Your task to perform on an android device: toggle location history Image 0: 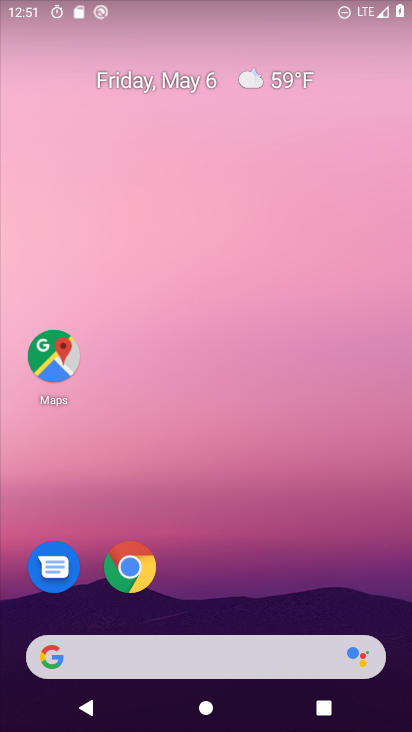
Step 0: click (46, 363)
Your task to perform on an android device: toggle location history Image 1: 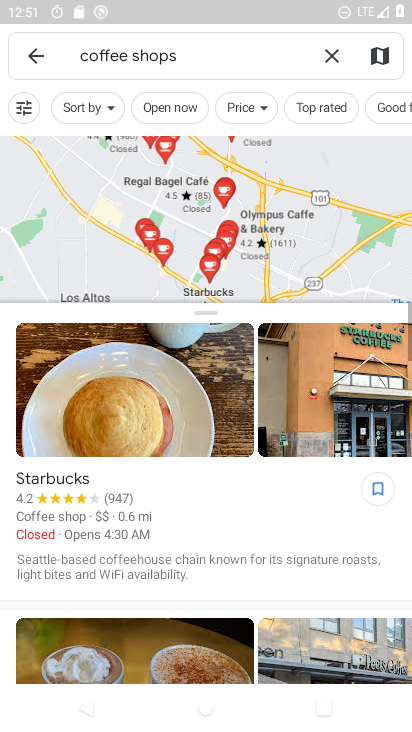
Step 1: click (340, 56)
Your task to perform on an android device: toggle location history Image 2: 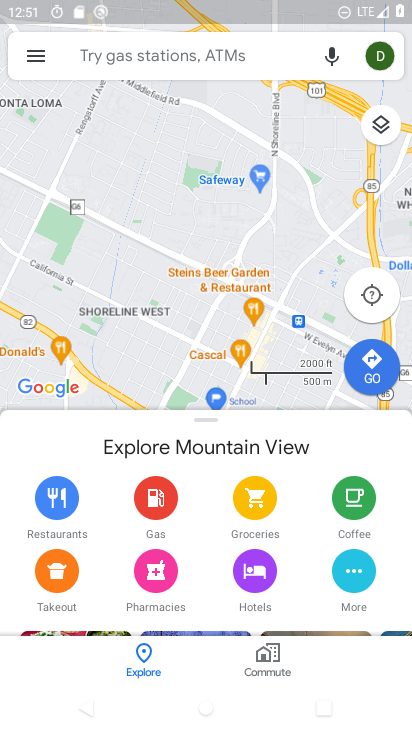
Step 2: click (36, 60)
Your task to perform on an android device: toggle location history Image 3: 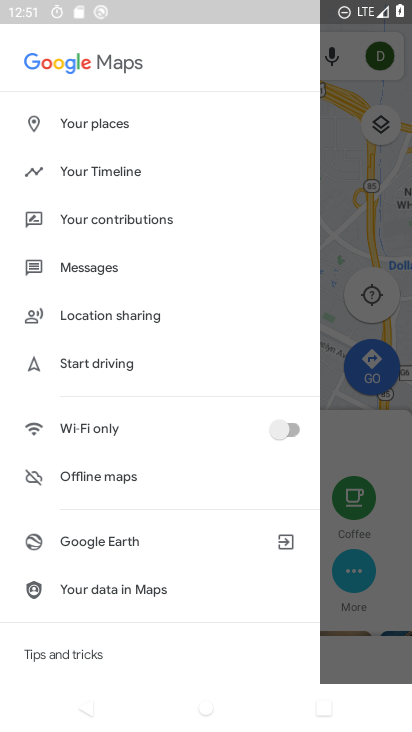
Step 3: click (82, 167)
Your task to perform on an android device: toggle location history Image 4: 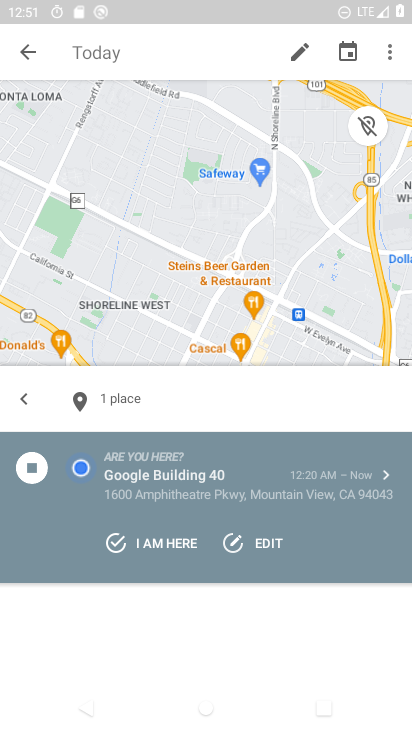
Step 4: click (389, 57)
Your task to perform on an android device: toggle location history Image 5: 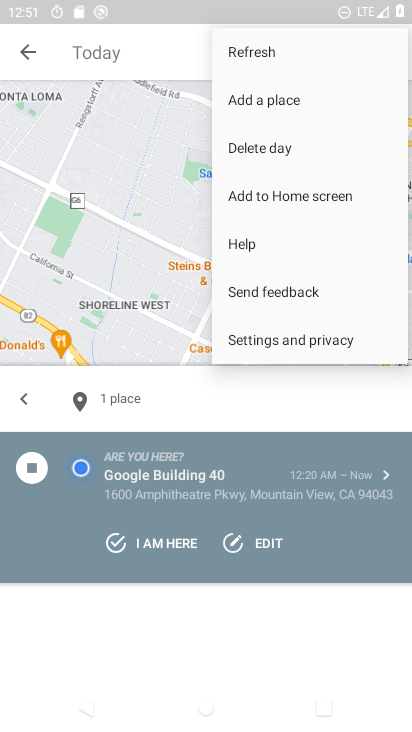
Step 5: click (277, 339)
Your task to perform on an android device: toggle location history Image 6: 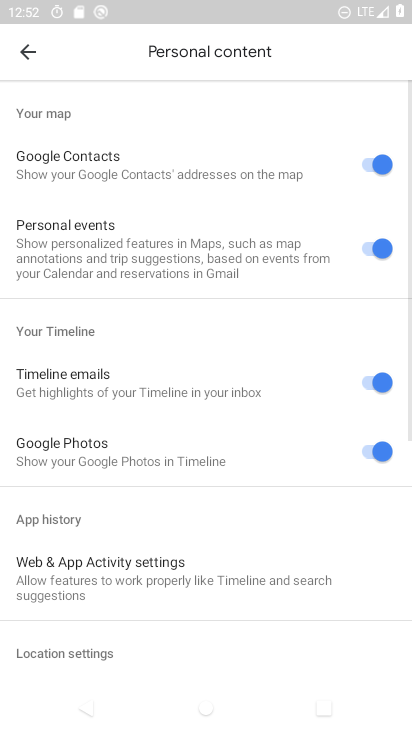
Step 6: drag from (171, 457) to (175, 190)
Your task to perform on an android device: toggle location history Image 7: 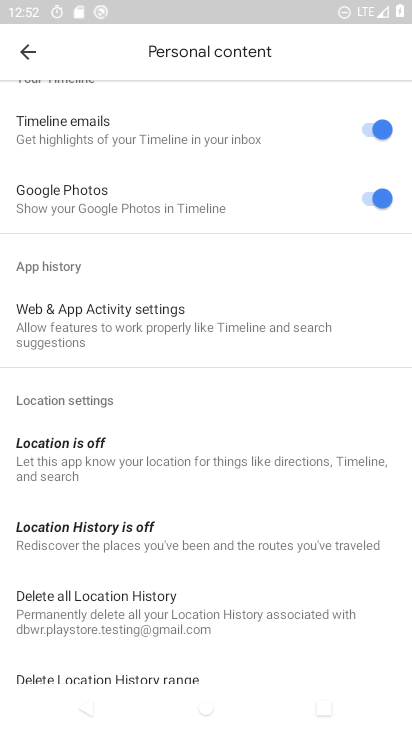
Step 7: click (87, 532)
Your task to perform on an android device: toggle location history Image 8: 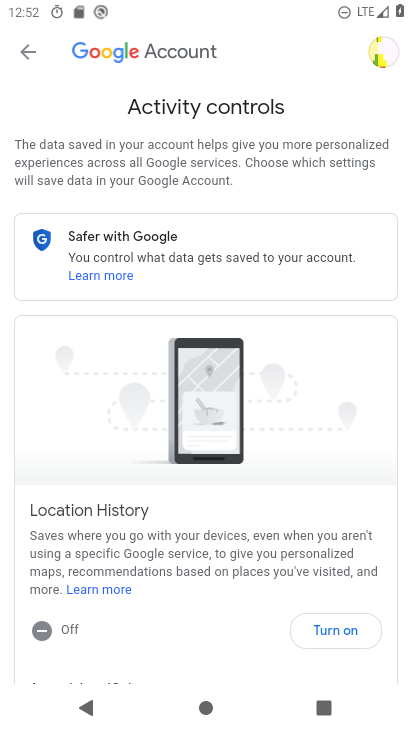
Step 8: click (319, 627)
Your task to perform on an android device: toggle location history Image 9: 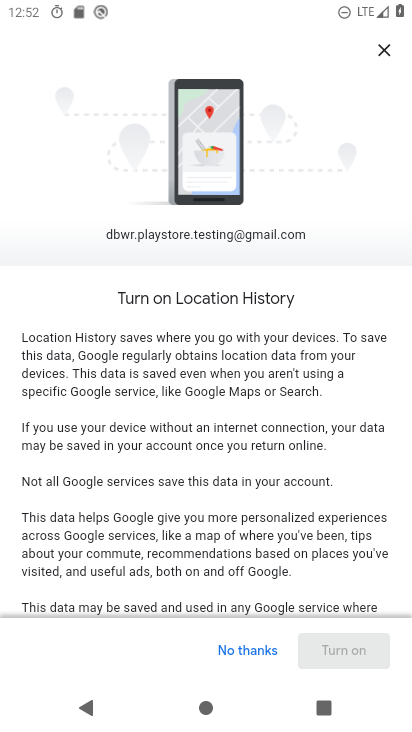
Step 9: drag from (255, 589) to (283, 121)
Your task to perform on an android device: toggle location history Image 10: 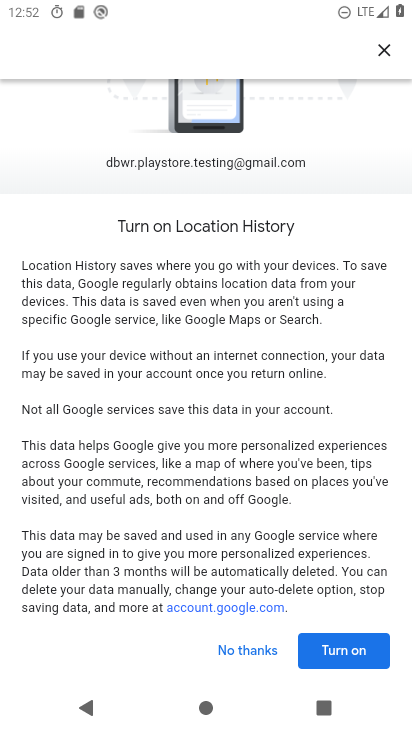
Step 10: click (337, 647)
Your task to perform on an android device: toggle location history Image 11: 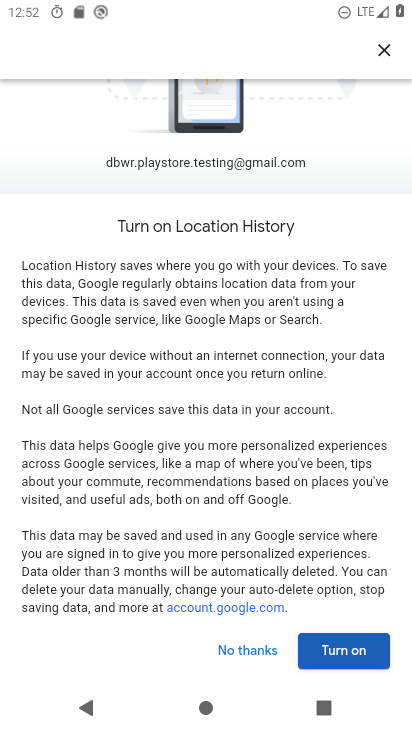
Step 11: click (350, 652)
Your task to perform on an android device: toggle location history Image 12: 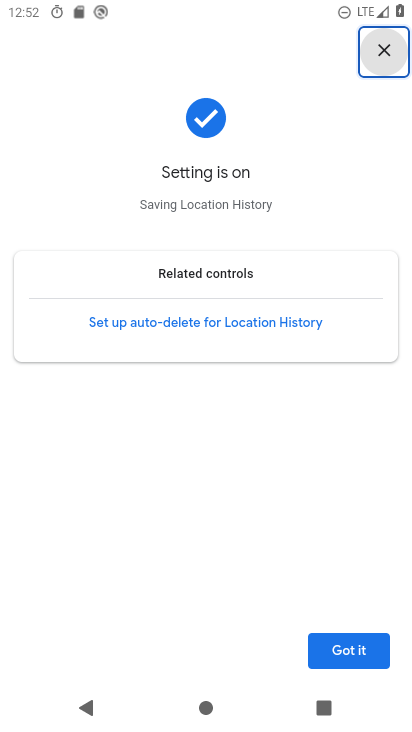
Step 12: click (343, 644)
Your task to perform on an android device: toggle location history Image 13: 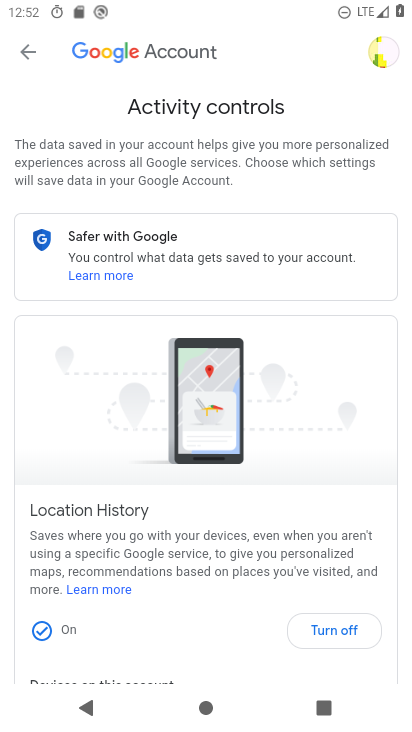
Step 13: task complete